Your task to perform on an android device: Open Youtube and go to the subscriptions tab Image 0: 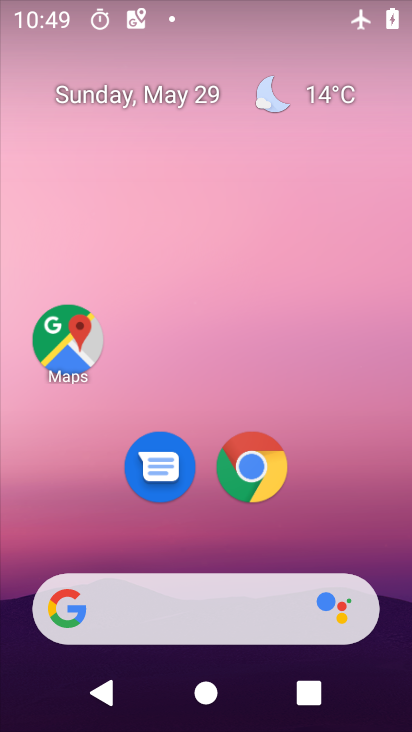
Step 0: drag from (203, 548) to (216, 254)
Your task to perform on an android device: Open Youtube and go to the subscriptions tab Image 1: 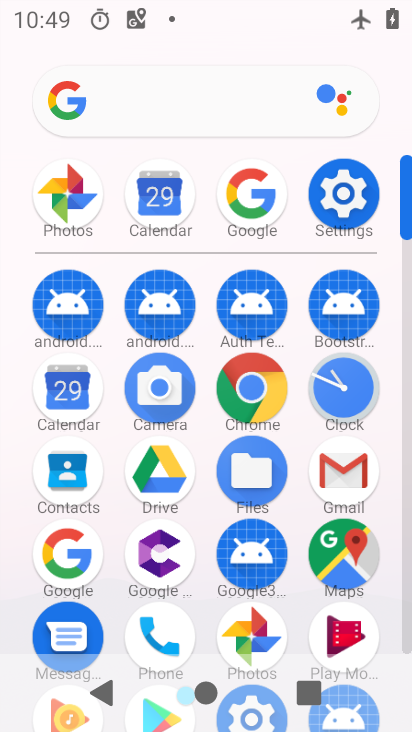
Step 1: drag from (242, 608) to (249, 273)
Your task to perform on an android device: Open Youtube and go to the subscriptions tab Image 2: 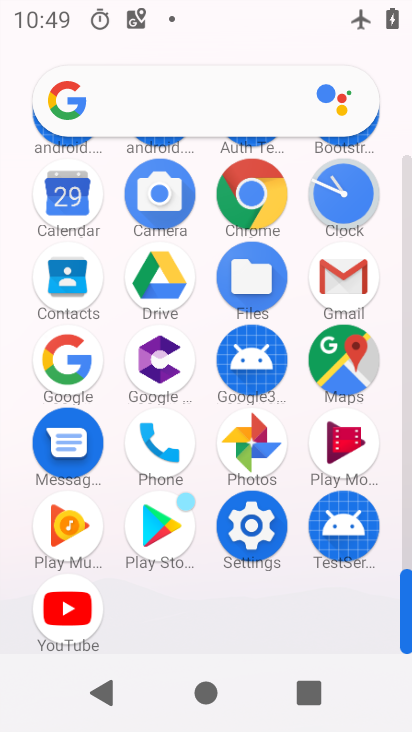
Step 2: click (79, 620)
Your task to perform on an android device: Open Youtube and go to the subscriptions tab Image 3: 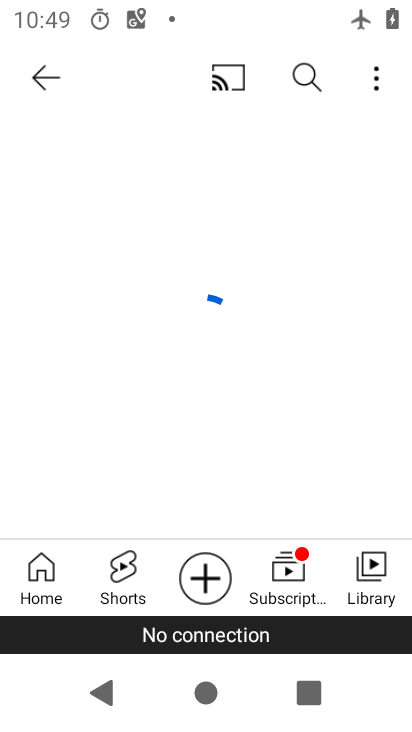
Step 3: click (283, 563)
Your task to perform on an android device: Open Youtube and go to the subscriptions tab Image 4: 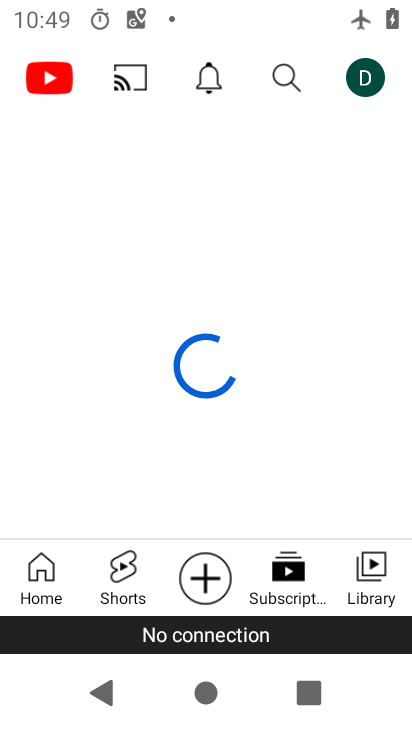
Step 4: task complete